Your task to perform on an android device: Open calendar and show me the third week of next month Image 0: 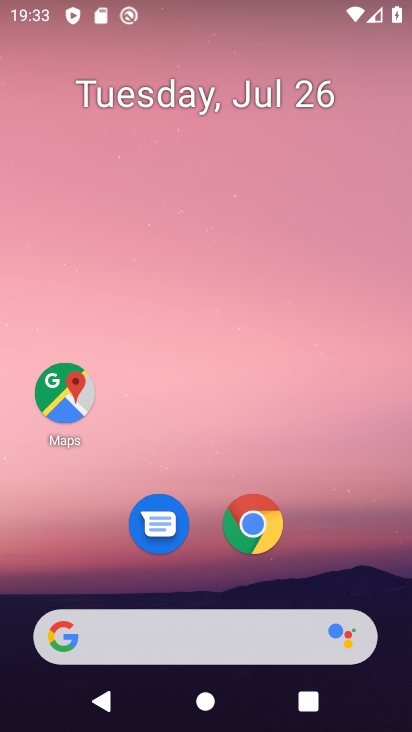
Step 0: drag from (142, 652) to (321, 191)
Your task to perform on an android device: Open calendar and show me the third week of next month Image 1: 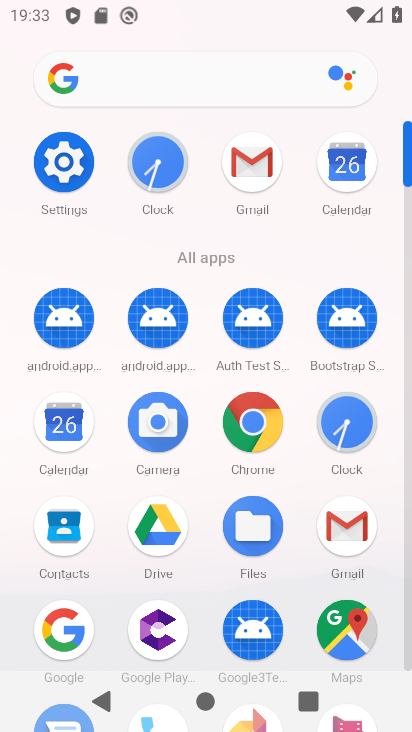
Step 1: click (62, 426)
Your task to perform on an android device: Open calendar and show me the third week of next month Image 2: 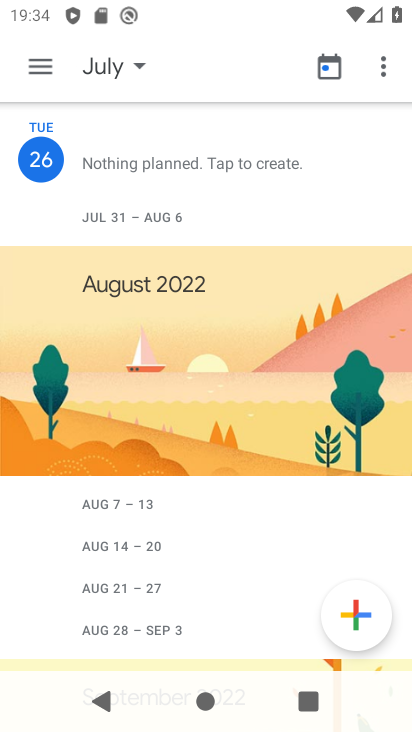
Step 2: click (115, 69)
Your task to perform on an android device: Open calendar and show me the third week of next month Image 3: 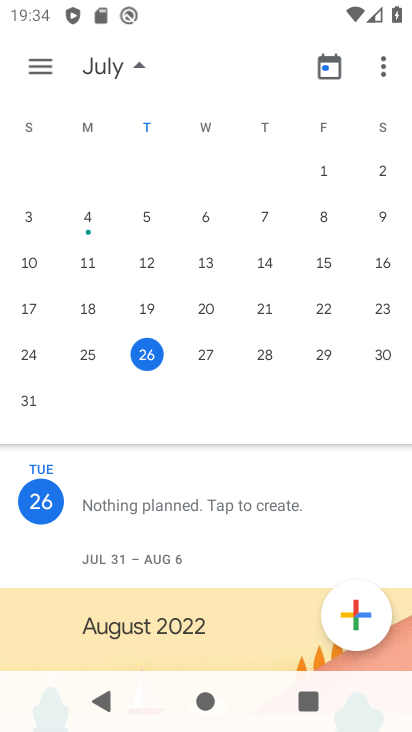
Step 3: drag from (360, 334) to (16, 294)
Your task to perform on an android device: Open calendar and show me the third week of next month Image 4: 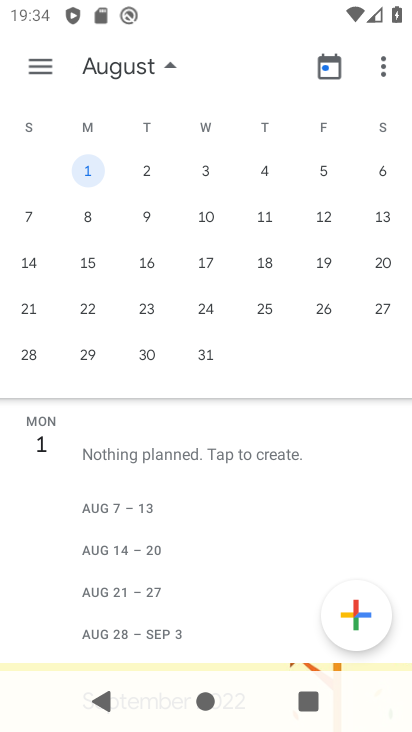
Step 4: click (25, 261)
Your task to perform on an android device: Open calendar and show me the third week of next month Image 5: 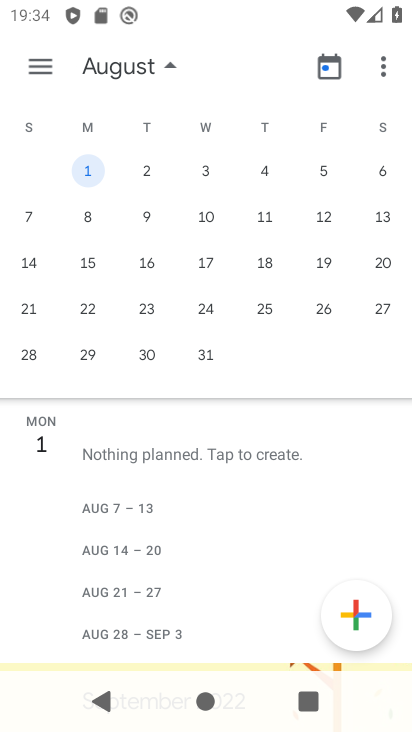
Step 5: click (36, 261)
Your task to perform on an android device: Open calendar and show me the third week of next month Image 6: 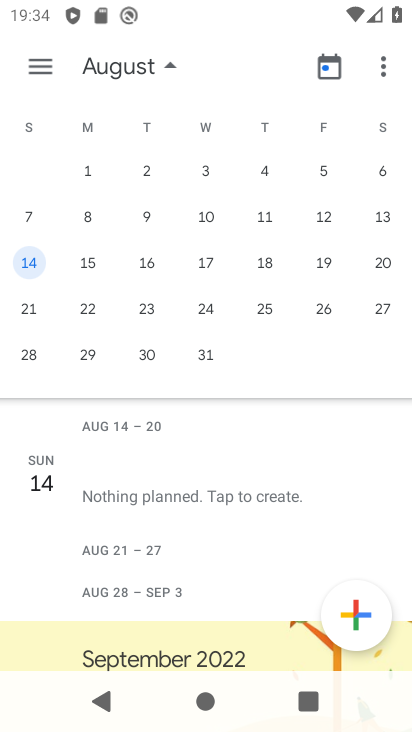
Step 6: click (38, 65)
Your task to perform on an android device: Open calendar and show me the third week of next month Image 7: 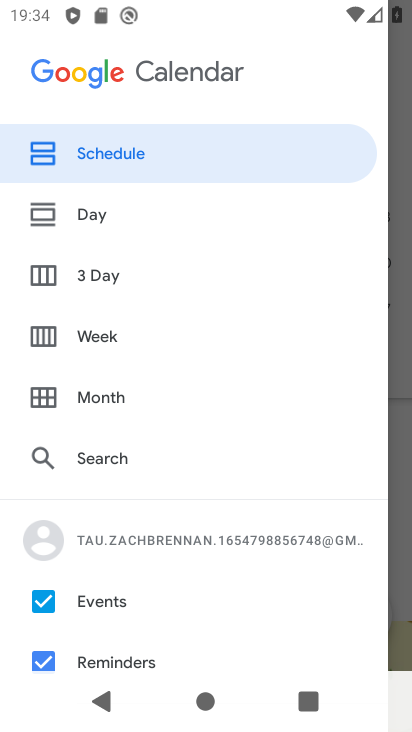
Step 7: click (101, 348)
Your task to perform on an android device: Open calendar and show me the third week of next month Image 8: 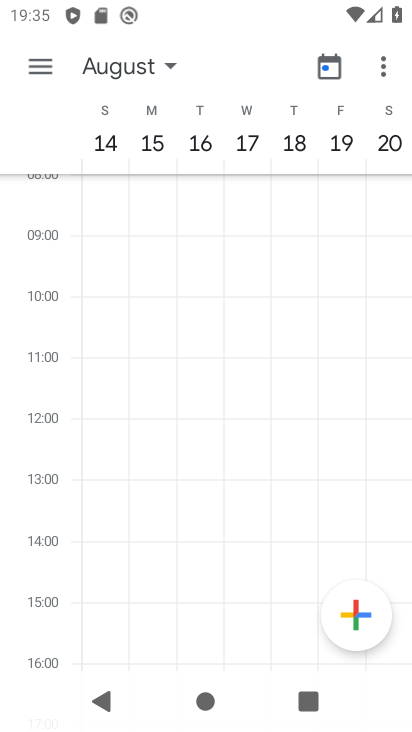
Step 8: task complete